Your task to perform on an android device: toggle improve location accuracy Image 0: 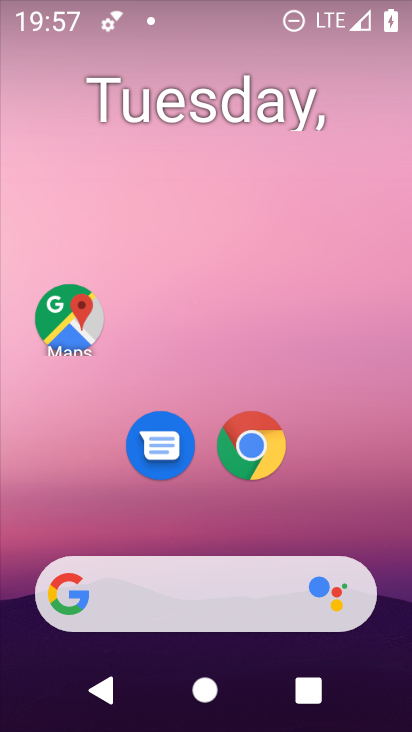
Step 0: drag from (234, 524) to (219, 188)
Your task to perform on an android device: toggle improve location accuracy Image 1: 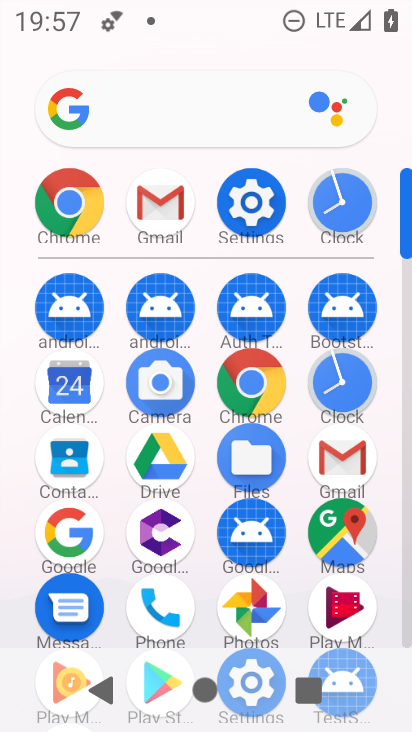
Step 1: click (236, 218)
Your task to perform on an android device: toggle improve location accuracy Image 2: 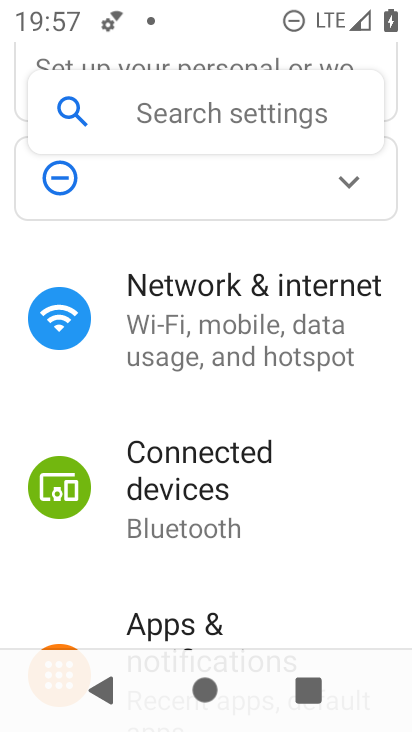
Step 2: drag from (269, 528) to (265, 228)
Your task to perform on an android device: toggle improve location accuracy Image 3: 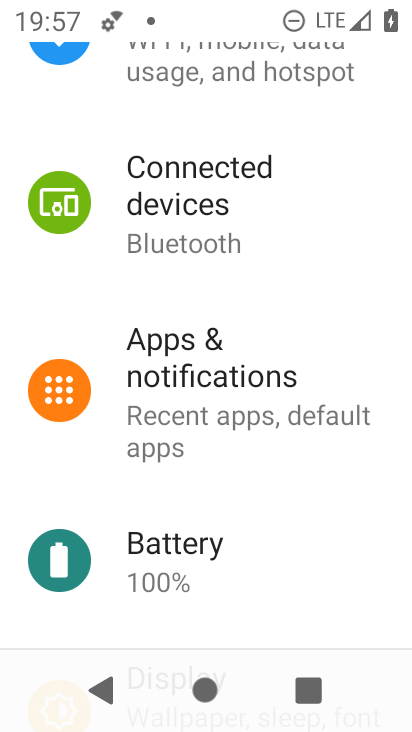
Step 3: drag from (132, 551) to (195, 452)
Your task to perform on an android device: toggle improve location accuracy Image 4: 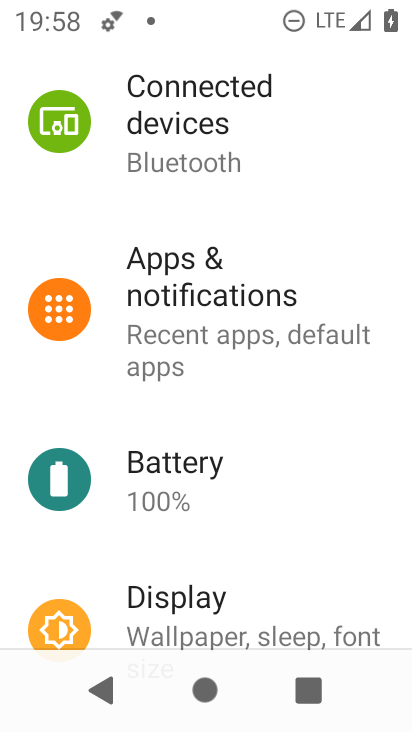
Step 4: drag from (190, 584) to (187, 182)
Your task to perform on an android device: toggle improve location accuracy Image 5: 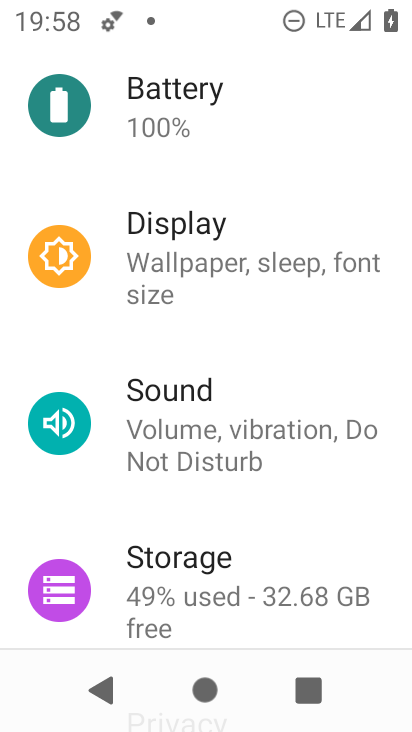
Step 5: drag from (184, 537) to (225, 237)
Your task to perform on an android device: toggle improve location accuracy Image 6: 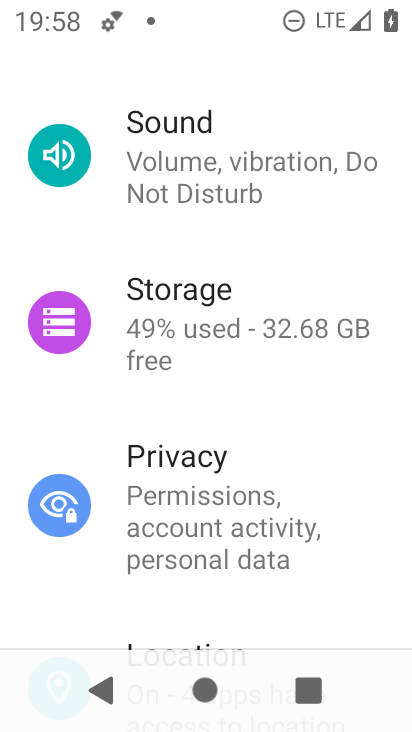
Step 6: drag from (182, 498) to (225, 235)
Your task to perform on an android device: toggle improve location accuracy Image 7: 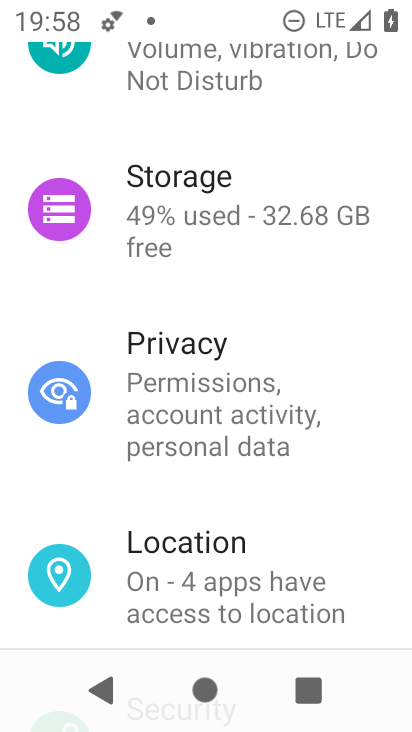
Step 7: click (191, 579)
Your task to perform on an android device: toggle improve location accuracy Image 8: 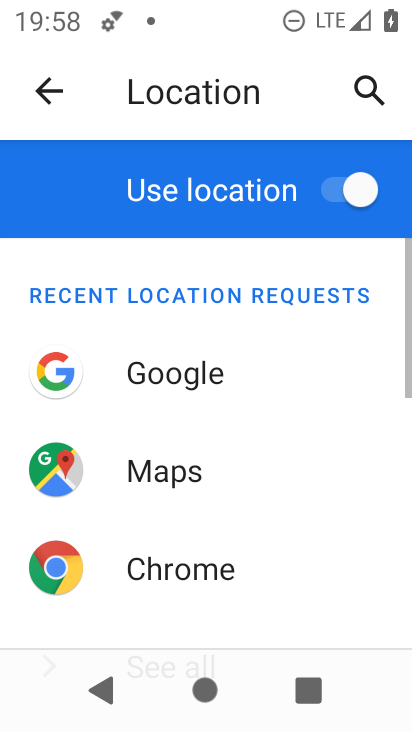
Step 8: drag from (192, 563) to (230, 190)
Your task to perform on an android device: toggle improve location accuracy Image 9: 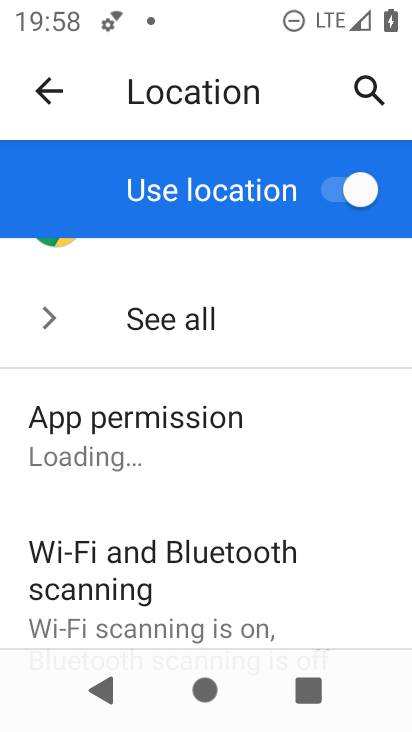
Step 9: drag from (192, 564) to (213, 217)
Your task to perform on an android device: toggle improve location accuracy Image 10: 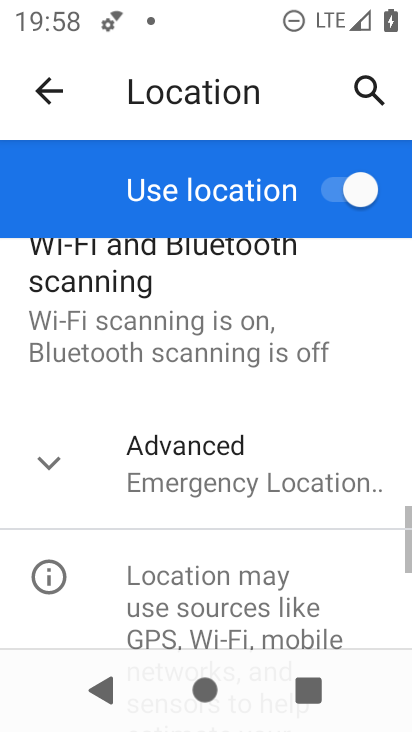
Step 10: click (179, 468)
Your task to perform on an android device: toggle improve location accuracy Image 11: 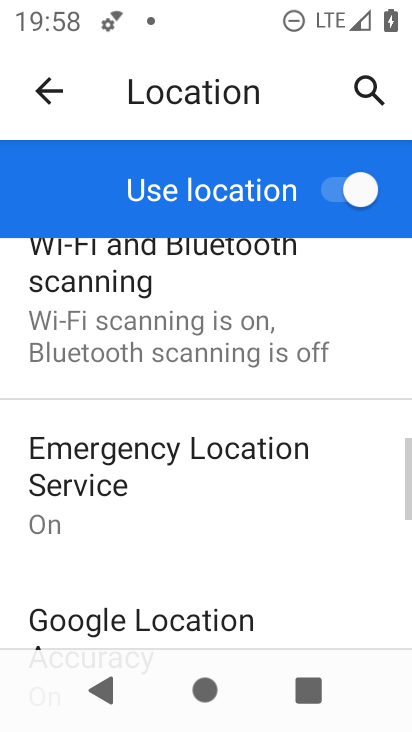
Step 11: drag from (142, 557) to (185, 283)
Your task to perform on an android device: toggle improve location accuracy Image 12: 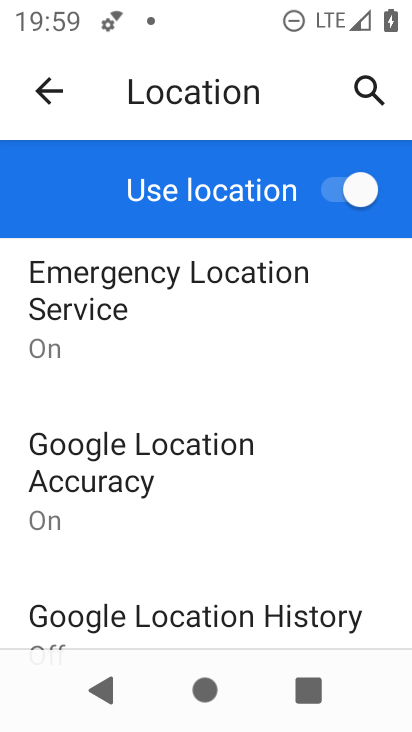
Step 12: drag from (191, 588) to (200, 161)
Your task to perform on an android device: toggle improve location accuracy Image 13: 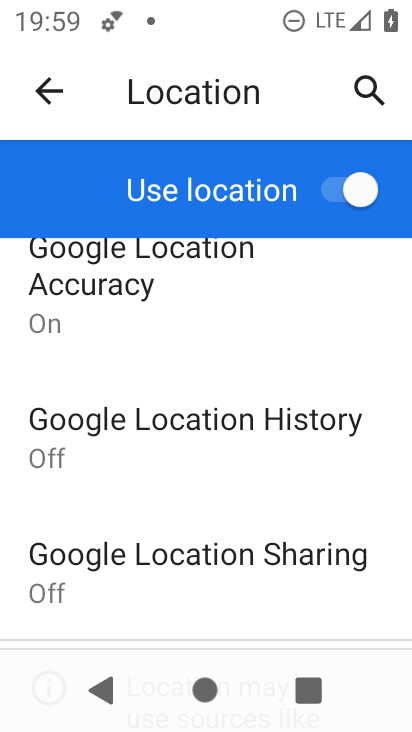
Step 13: click (149, 304)
Your task to perform on an android device: toggle improve location accuracy Image 14: 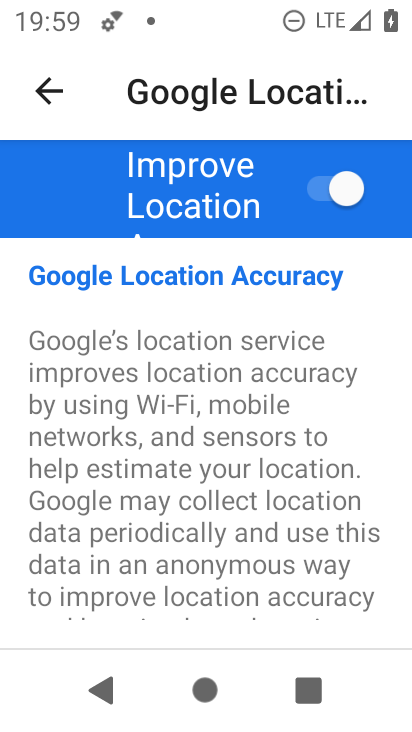
Step 14: click (323, 197)
Your task to perform on an android device: toggle improve location accuracy Image 15: 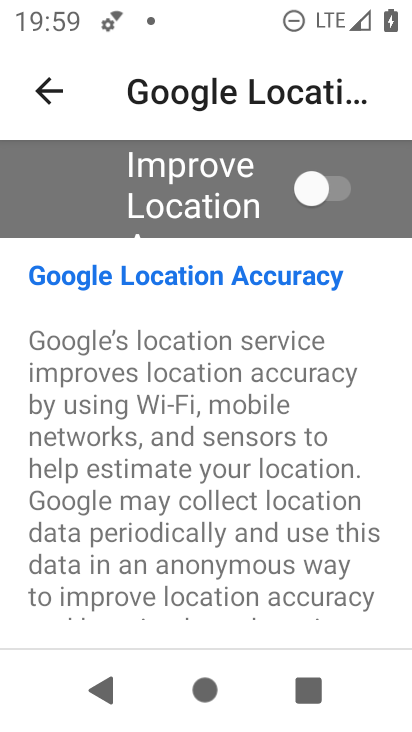
Step 15: task complete